Your task to perform on an android device: change the clock display to analog Image 0: 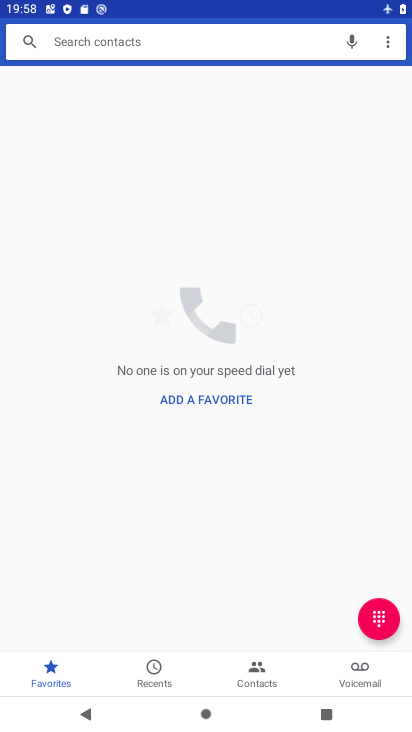
Step 0: press home button
Your task to perform on an android device: change the clock display to analog Image 1: 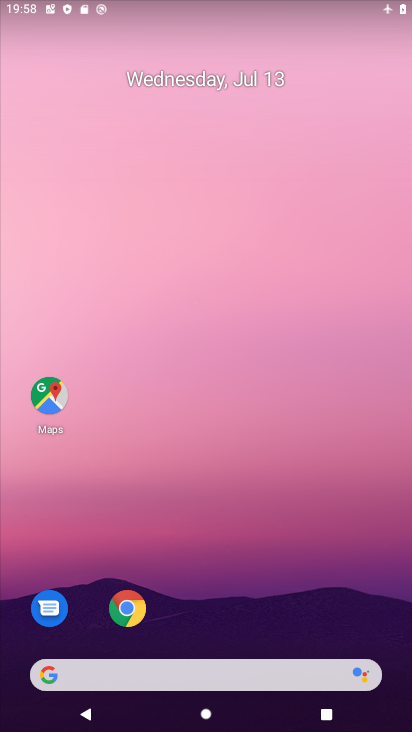
Step 1: drag from (174, 639) to (78, 5)
Your task to perform on an android device: change the clock display to analog Image 2: 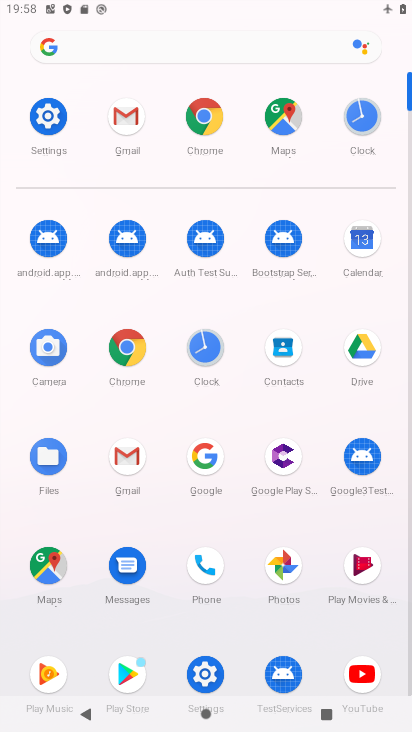
Step 2: click (201, 348)
Your task to perform on an android device: change the clock display to analog Image 3: 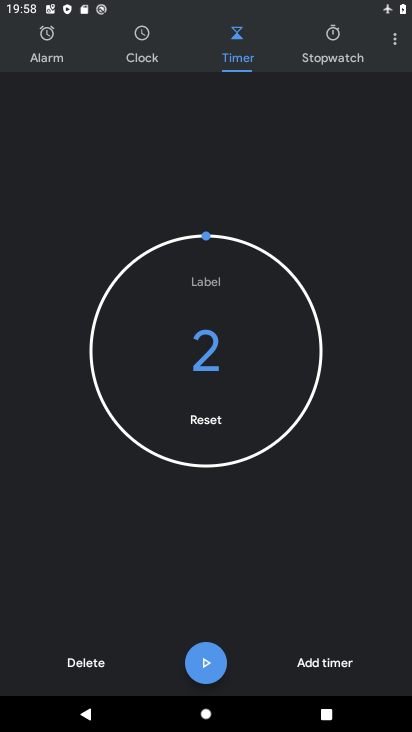
Step 3: drag from (395, 43) to (316, 88)
Your task to perform on an android device: change the clock display to analog Image 4: 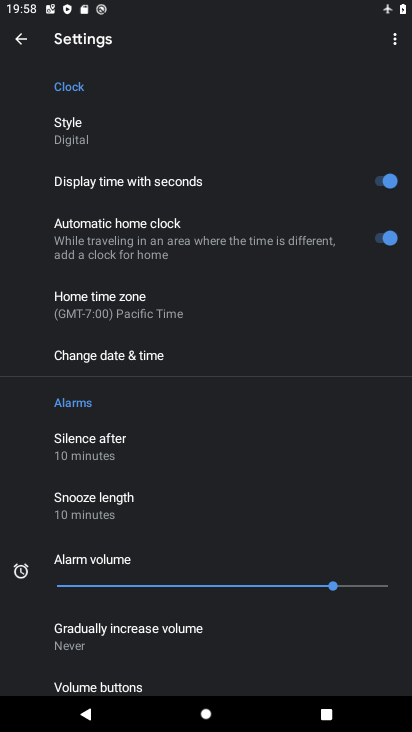
Step 4: click (114, 136)
Your task to perform on an android device: change the clock display to analog Image 5: 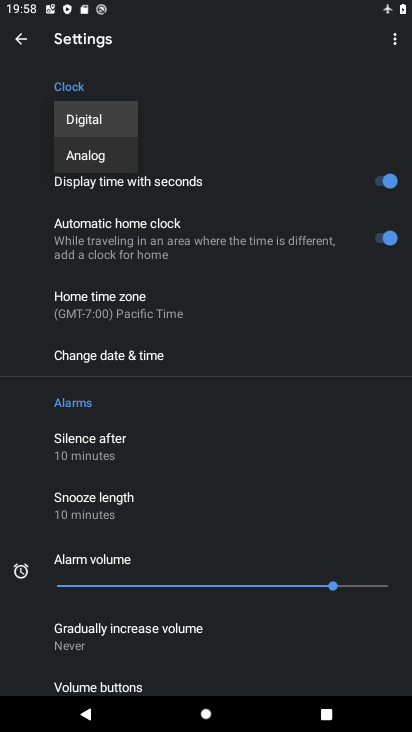
Step 5: click (105, 155)
Your task to perform on an android device: change the clock display to analog Image 6: 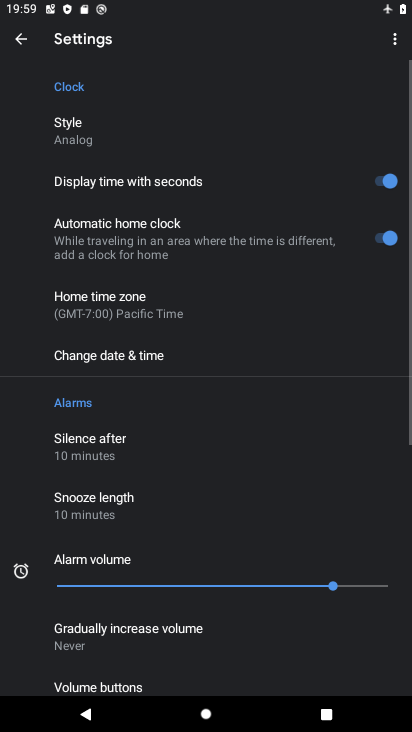
Step 6: task complete